Your task to perform on an android device: What time is it in New York? Image 0: 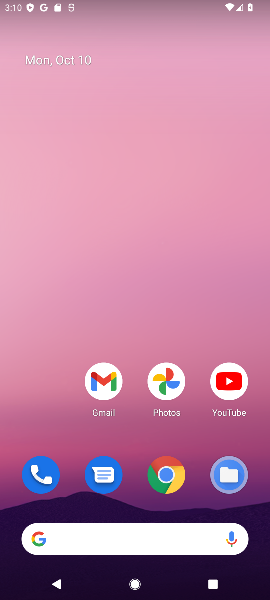
Step 0: drag from (163, 559) to (197, 29)
Your task to perform on an android device: What time is it in New York? Image 1: 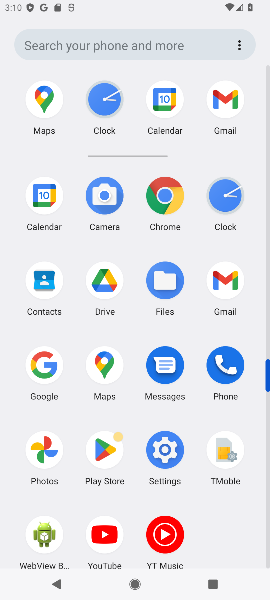
Step 1: click (50, 373)
Your task to perform on an android device: What time is it in New York? Image 2: 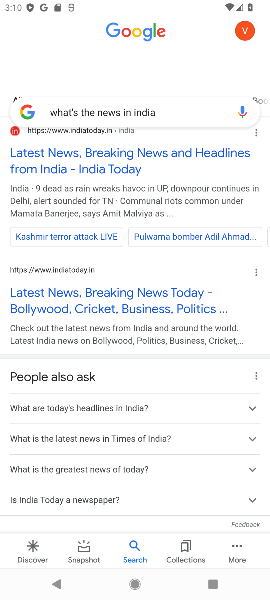
Step 2: click (196, 112)
Your task to perform on an android device: What time is it in New York? Image 3: 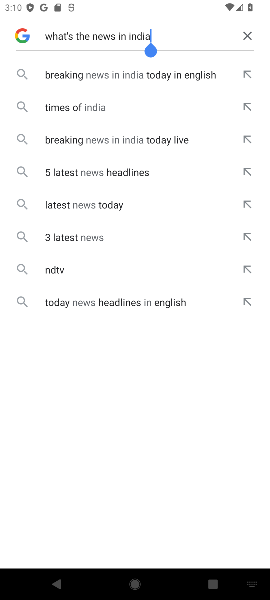
Step 3: click (248, 38)
Your task to perform on an android device: What time is it in New York? Image 4: 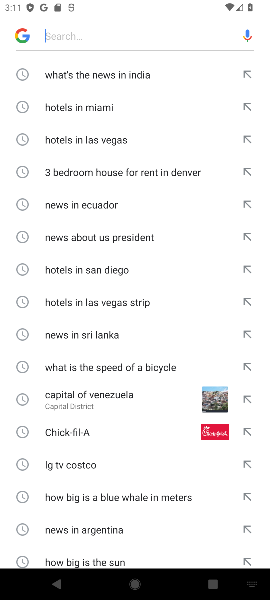
Step 4: type "What time is it in New York?"
Your task to perform on an android device: What time is it in New York? Image 5: 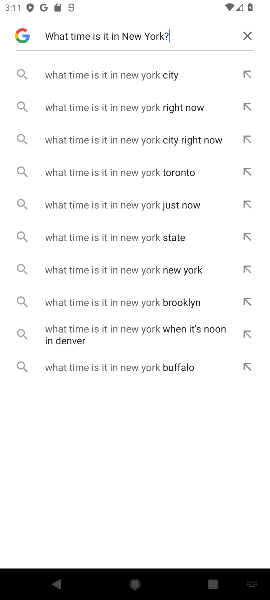
Step 5: click (140, 114)
Your task to perform on an android device: What time is it in New York? Image 6: 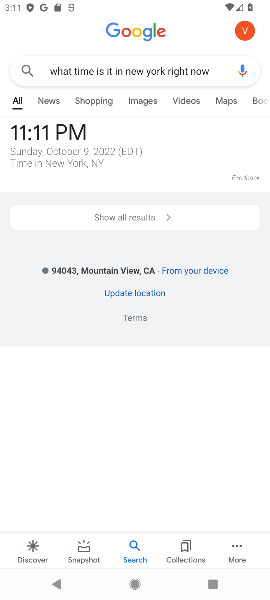
Step 6: task complete